Your task to perform on an android device: turn off location history Image 0: 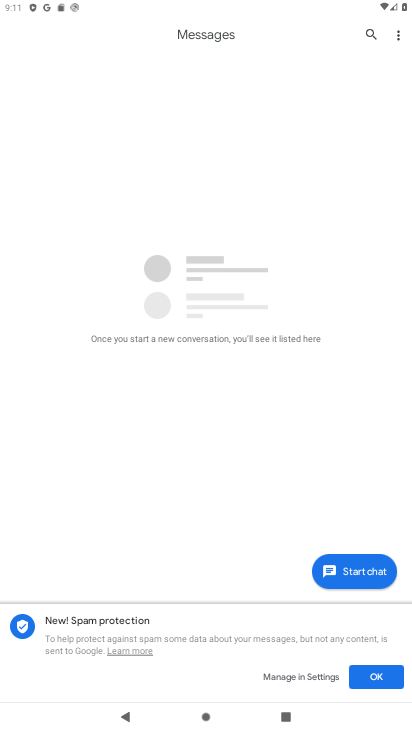
Step 0: drag from (245, 654) to (244, 583)
Your task to perform on an android device: turn off location history Image 1: 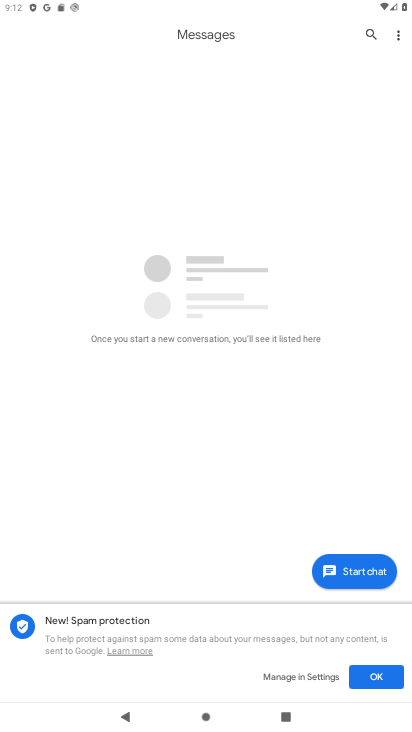
Step 1: press home button
Your task to perform on an android device: turn off location history Image 2: 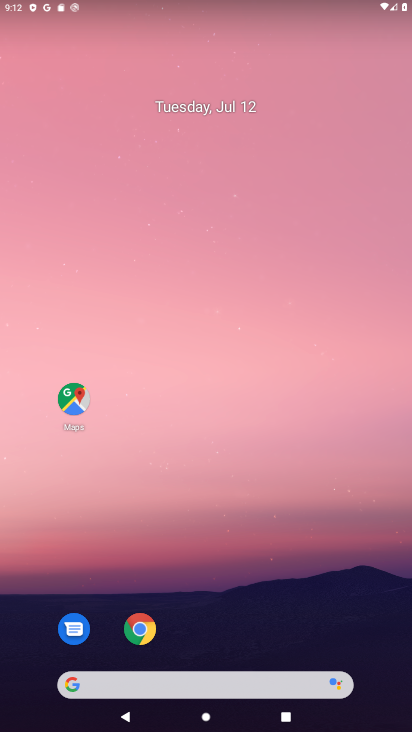
Step 2: click (70, 415)
Your task to perform on an android device: turn off location history Image 3: 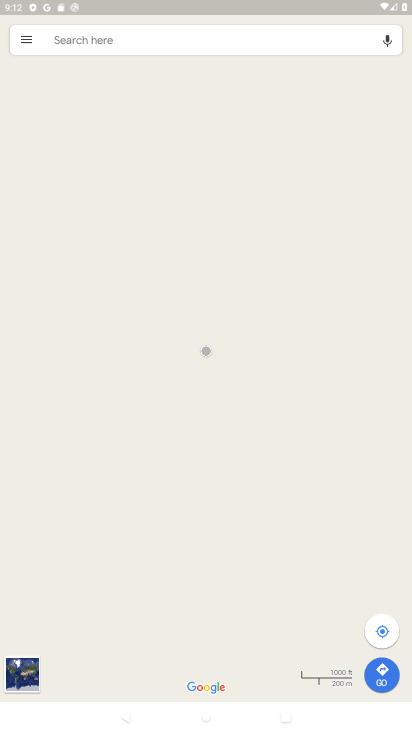
Step 3: click (20, 41)
Your task to perform on an android device: turn off location history Image 4: 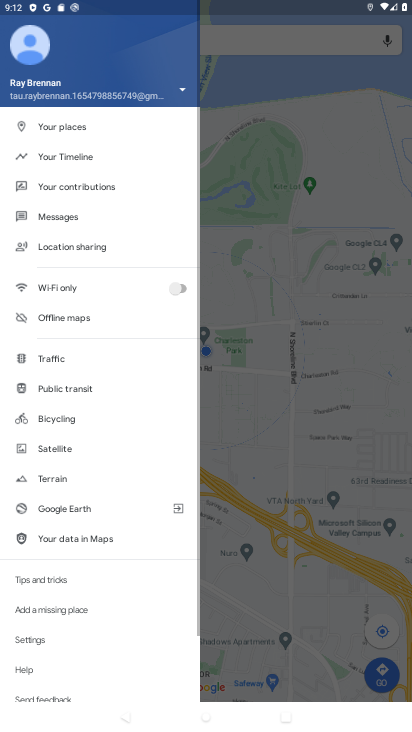
Step 4: click (88, 160)
Your task to perform on an android device: turn off location history Image 5: 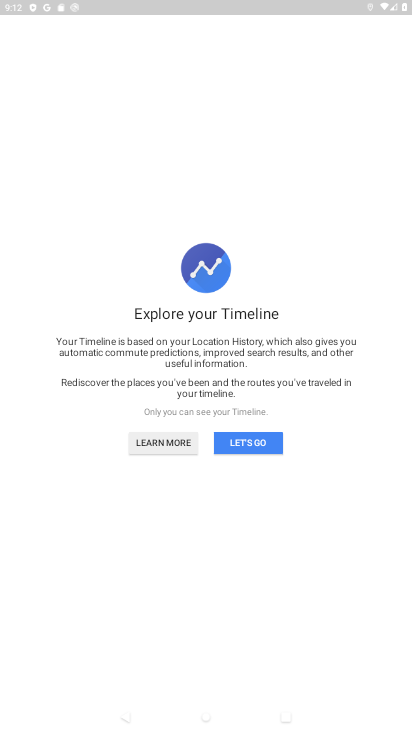
Step 5: click (254, 442)
Your task to perform on an android device: turn off location history Image 6: 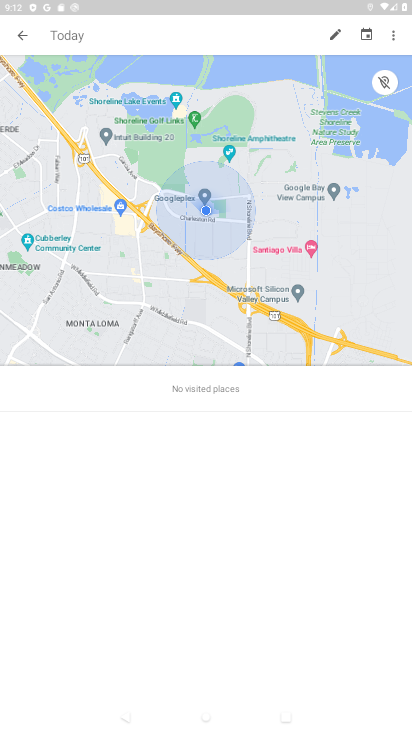
Step 6: click (393, 38)
Your task to perform on an android device: turn off location history Image 7: 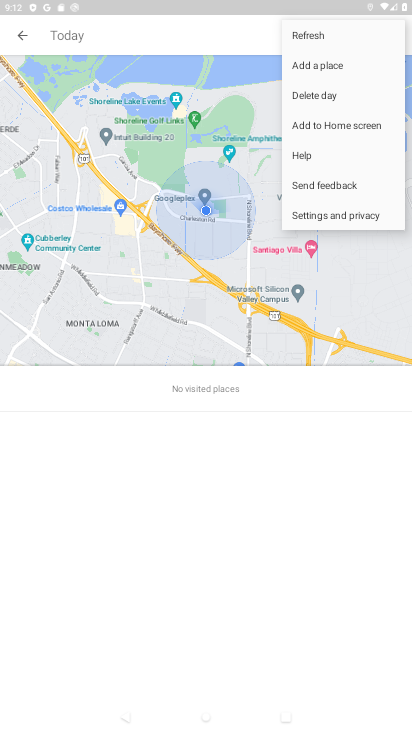
Step 7: click (348, 212)
Your task to perform on an android device: turn off location history Image 8: 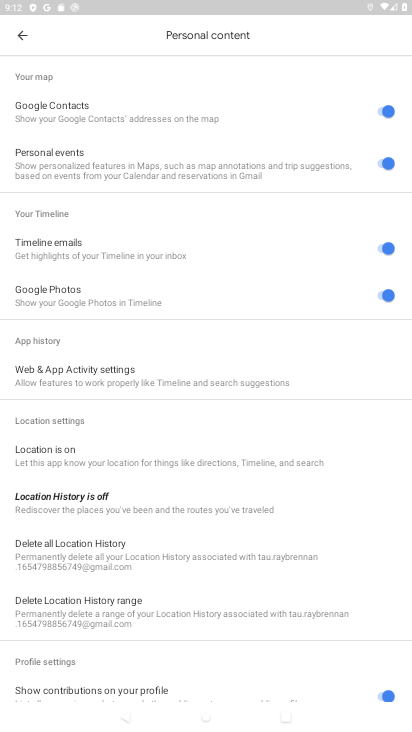
Step 8: task complete